Your task to perform on an android device: Open Google Maps and go to "Timeline" Image 0: 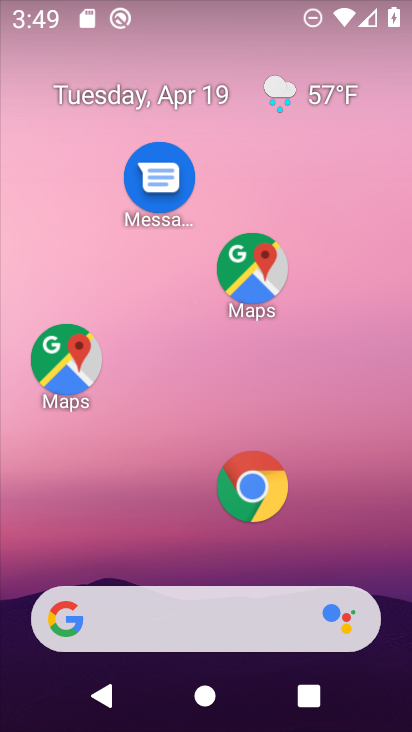
Step 0: click (79, 348)
Your task to perform on an android device: Open Google Maps and go to "Timeline" Image 1: 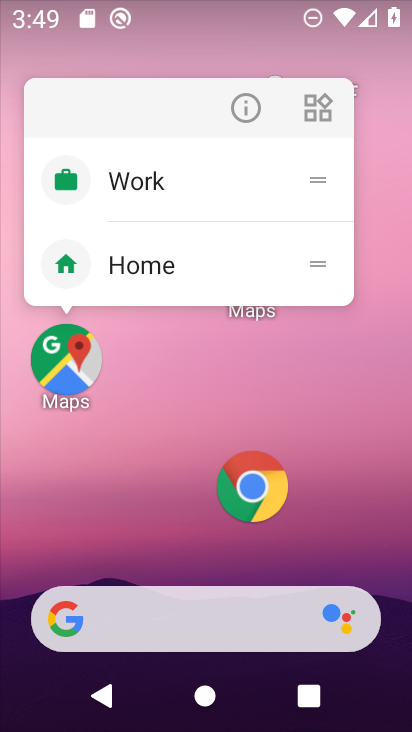
Step 1: click (237, 120)
Your task to perform on an android device: Open Google Maps and go to "Timeline" Image 2: 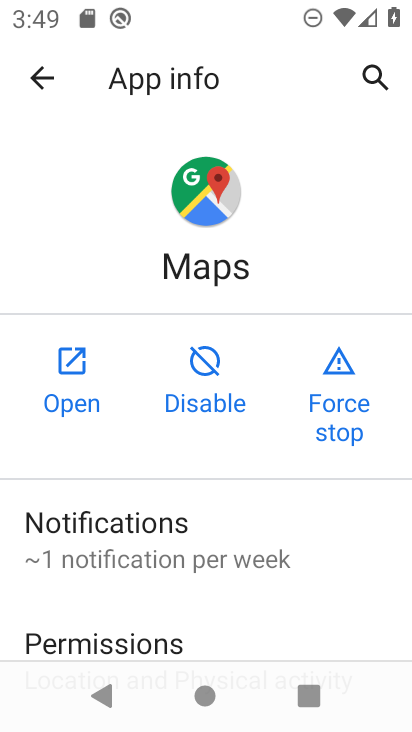
Step 2: click (80, 388)
Your task to perform on an android device: Open Google Maps and go to "Timeline" Image 3: 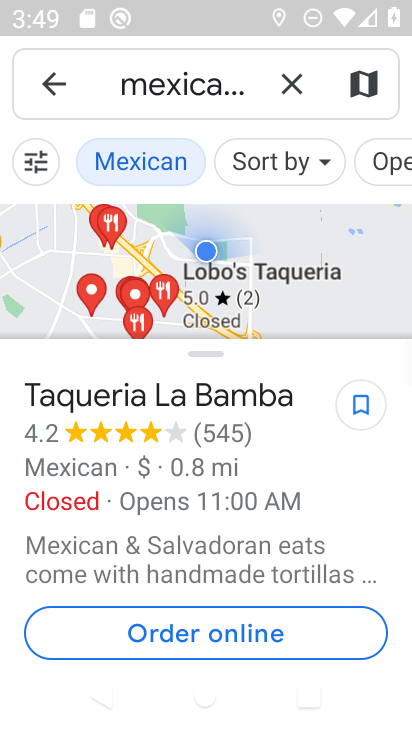
Step 3: click (56, 85)
Your task to perform on an android device: Open Google Maps and go to "Timeline" Image 4: 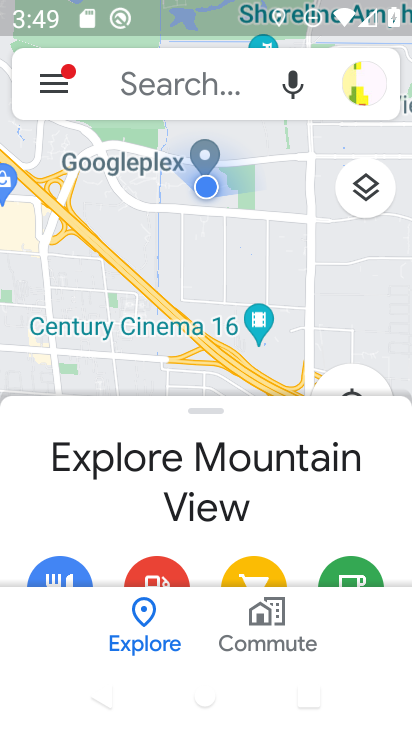
Step 4: click (54, 93)
Your task to perform on an android device: Open Google Maps and go to "Timeline" Image 5: 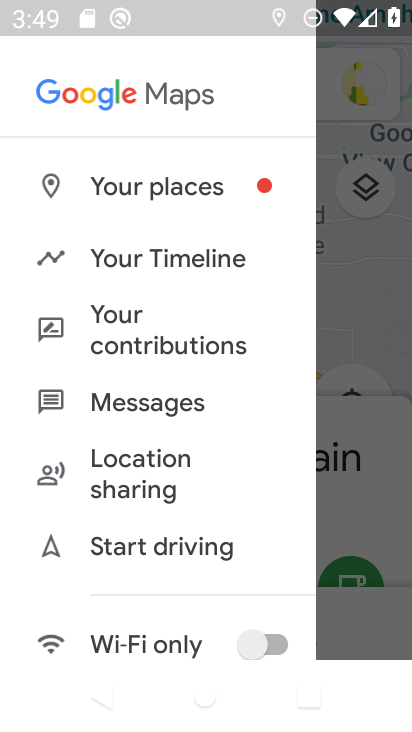
Step 5: click (139, 268)
Your task to perform on an android device: Open Google Maps and go to "Timeline" Image 6: 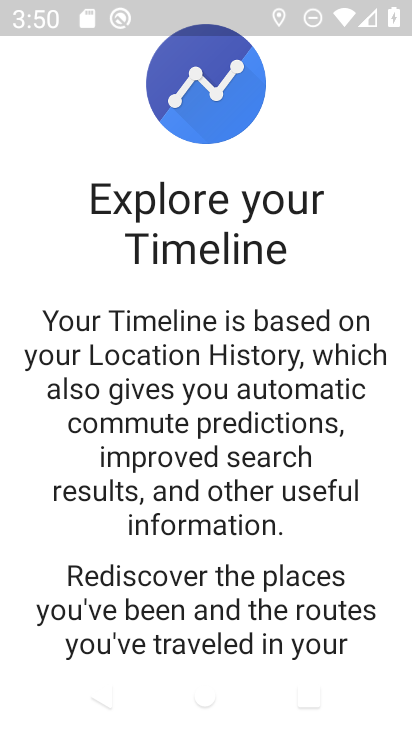
Step 6: drag from (216, 522) to (253, 110)
Your task to perform on an android device: Open Google Maps and go to "Timeline" Image 7: 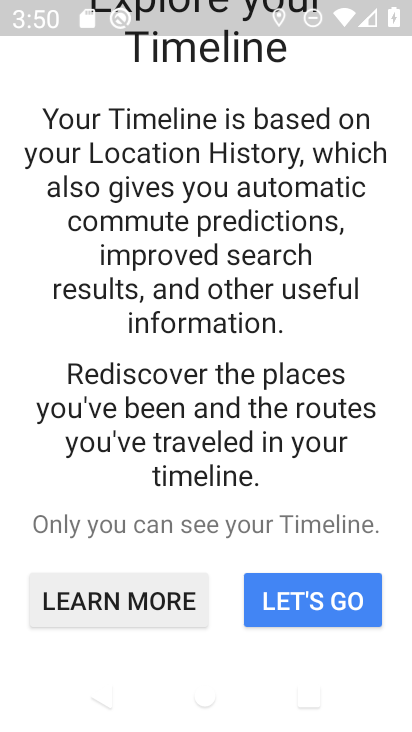
Step 7: click (289, 601)
Your task to perform on an android device: Open Google Maps and go to "Timeline" Image 8: 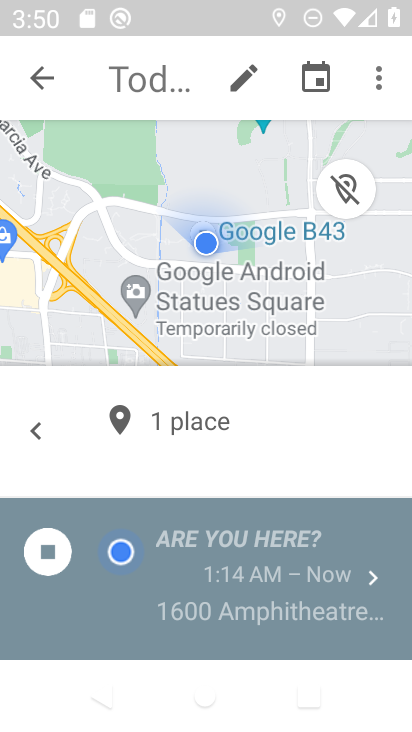
Step 8: task complete